Your task to perform on an android device: Go to ESPN.com Image 0: 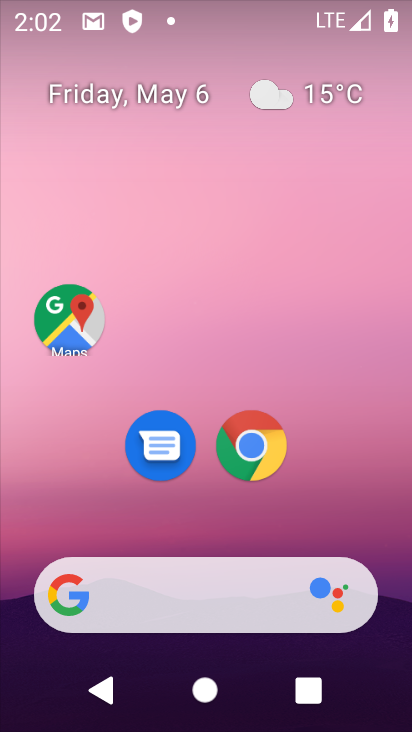
Step 0: click (258, 438)
Your task to perform on an android device: Go to ESPN.com Image 1: 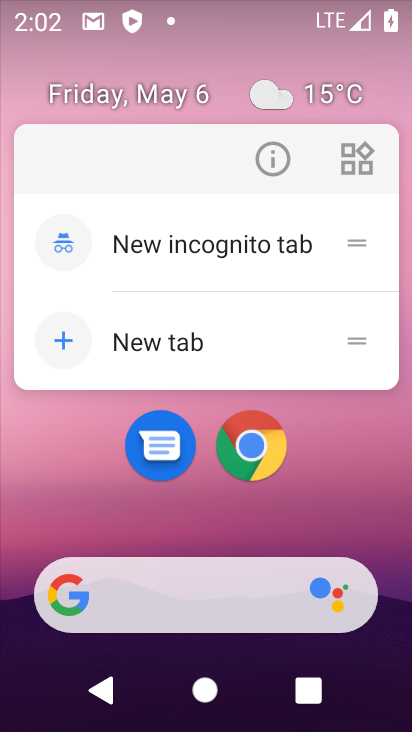
Step 1: click (258, 439)
Your task to perform on an android device: Go to ESPN.com Image 2: 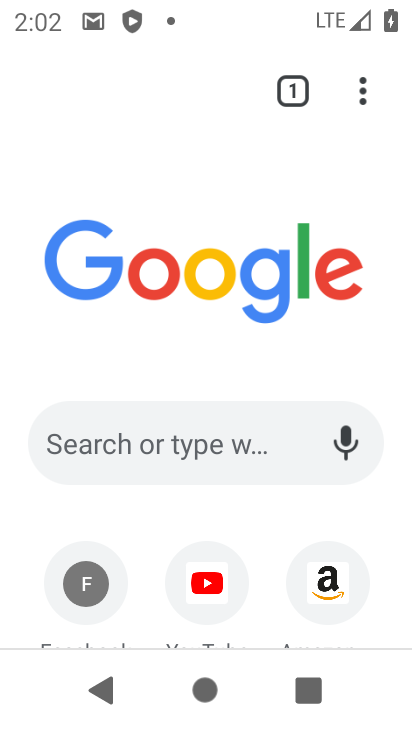
Step 2: click (181, 462)
Your task to perform on an android device: Go to ESPN.com Image 3: 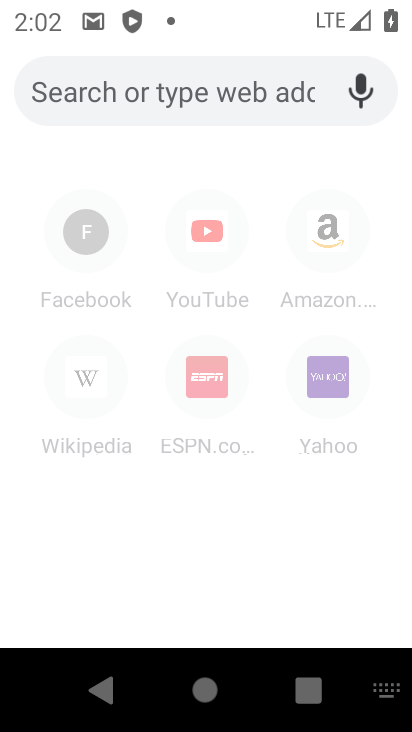
Step 3: type "espn.com"
Your task to perform on an android device: Go to ESPN.com Image 4: 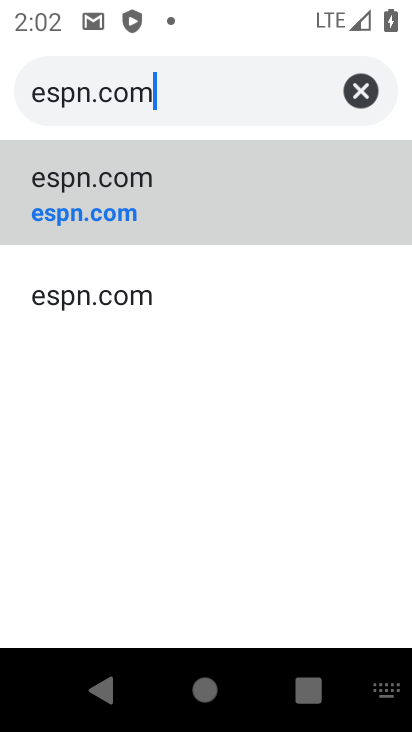
Step 4: click (116, 221)
Your task to perform on an android device: Go to ESPN.com Image 5: 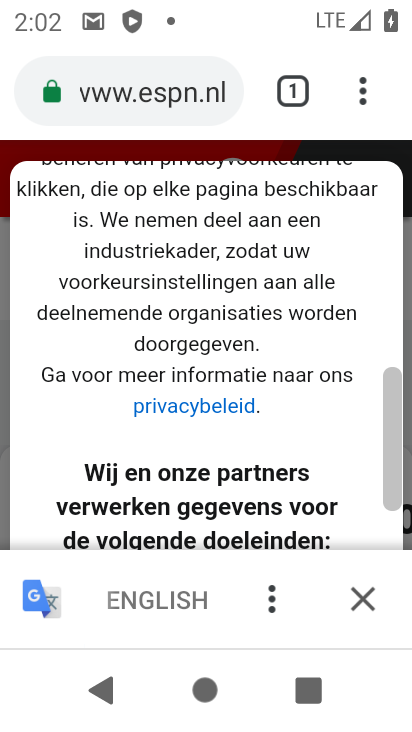
Step 5: task complete